Your task to perform on an android device: toggle airplane mode Image 0: 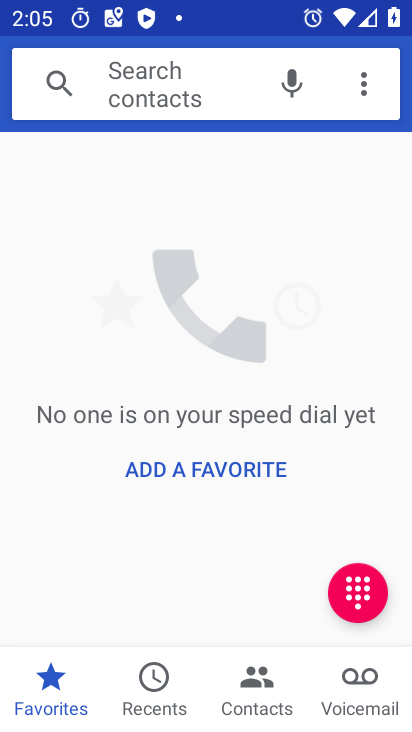
Step 0: press back button
Your task to perform on an android device: toggle airplane mode Image 1: 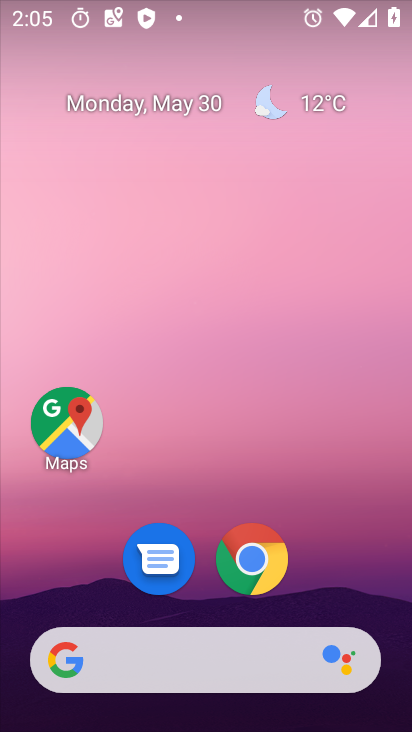
Step 1: drag from (343, 10) to (266, 411)
Your task to perform on an android device: toggle airplane mode Image 2: 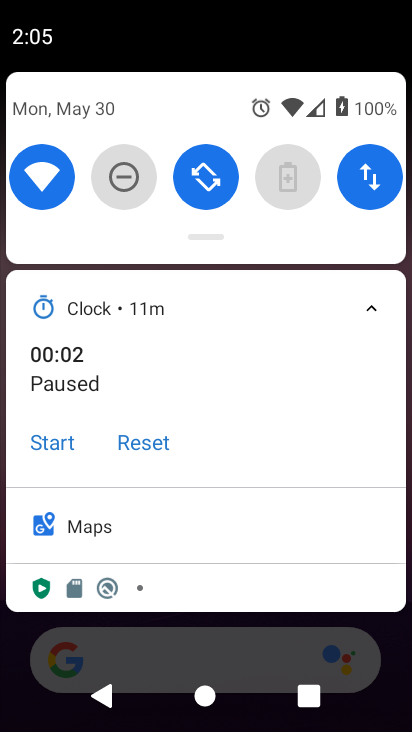
Step 2: drag from (199, 237) to (189, 608)
Your task to perform on an android device: toggle airplane mode Image 3: 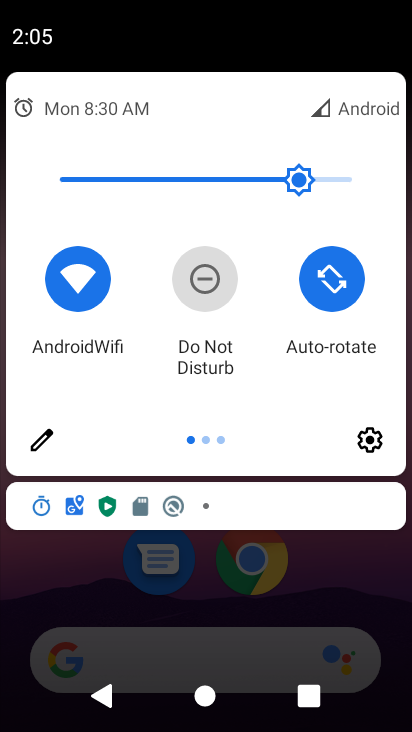
Step 3: drag from (351, 294) to (26, 258)
Your task to perform on an android device: toggle airplane mode Image 4: 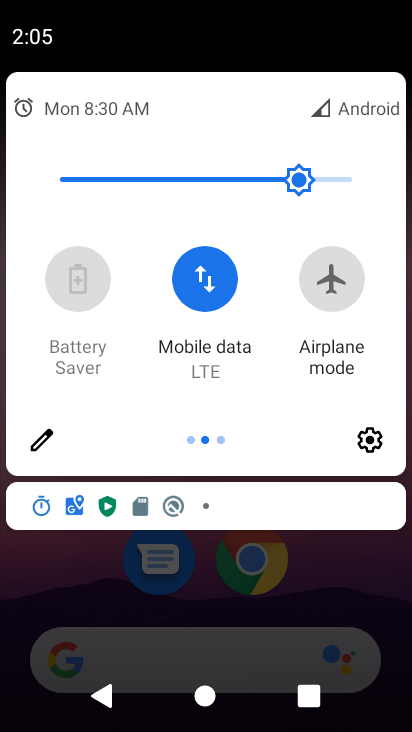
Step 4: click (337, 275)
Your task to perform on an android device: toggle airplane mode Image 5: 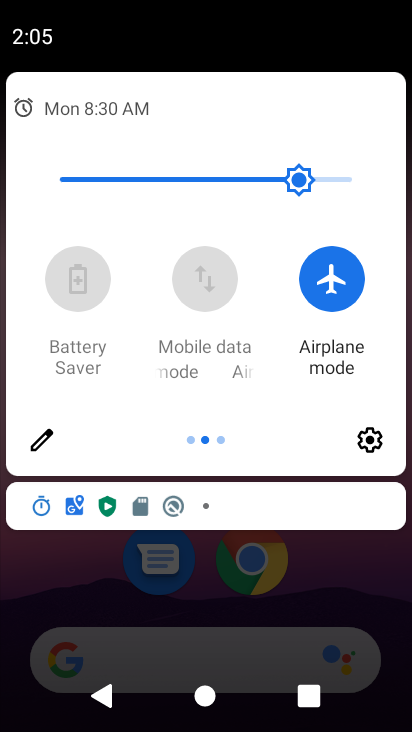
Step 5: task complete